Your task to perform on an android device: Play the last video I watched on Youtube Image 0: 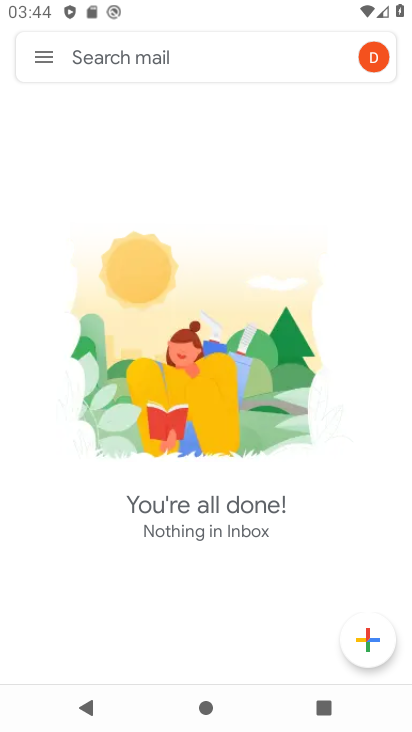
Step 0: press home button
Your task to perform on an android device: Play the last video I watched on Youtube Image 1: 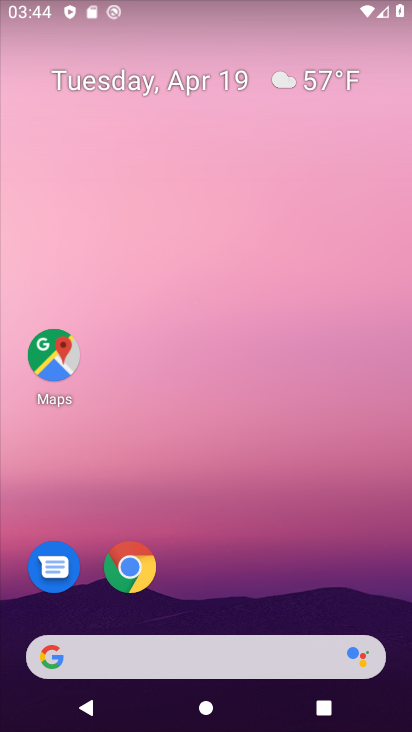
Step 1: drag from (317, 606) to (313, 268)
Your task to perform on an android device: Play the last video I watched on Youtube Image 2: 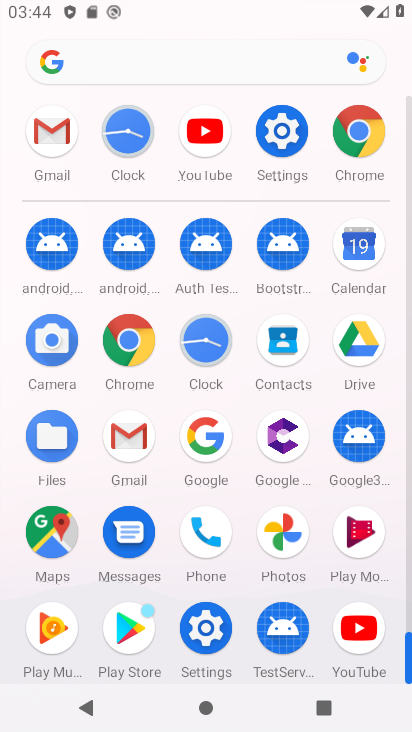
Step 2: click (364, 623)
Your task to perform on an android device: Play the last video I watched on Youtube Image 3: 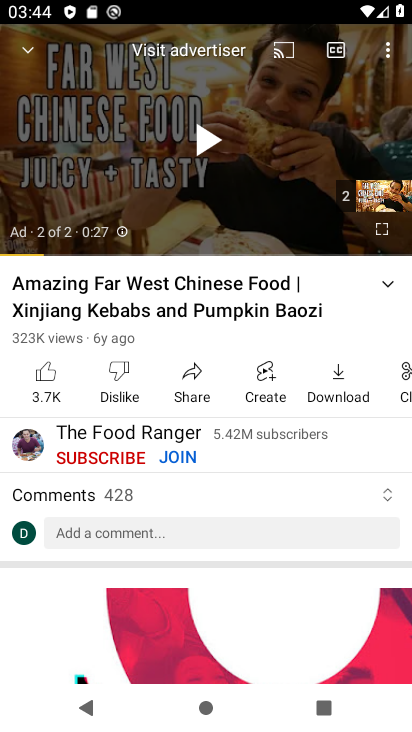
Step 3: click (208, 137)
Your task to perform on an android device: Play the last video I watched on Youtube Image 4: 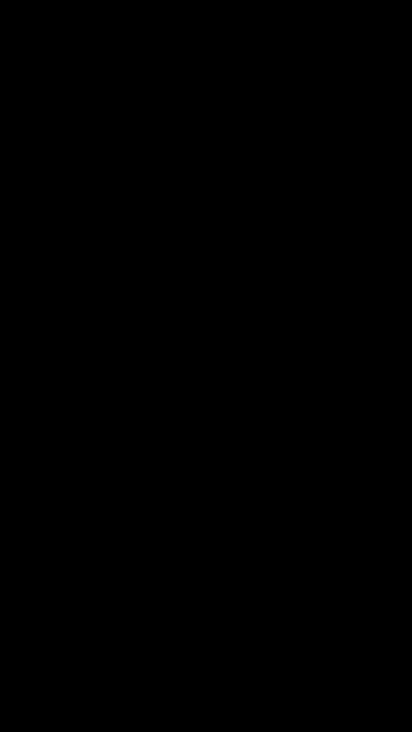
Step 4: task complete